Your task to perform on an android device: Open privacy settings Image 0: 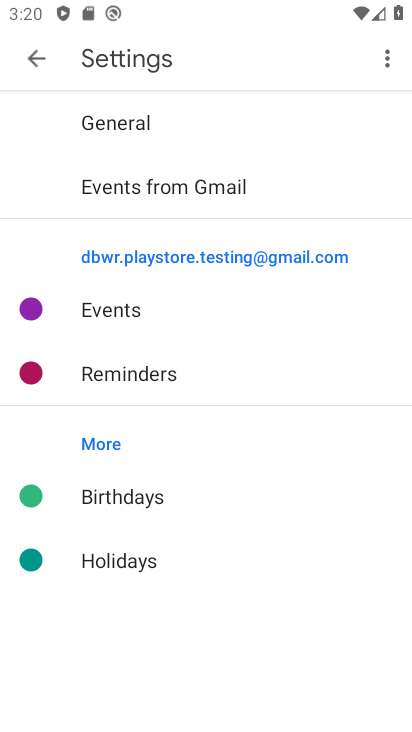
Step 0: press home button
Your task to perform on an android device: Open privacy settings Image 1: 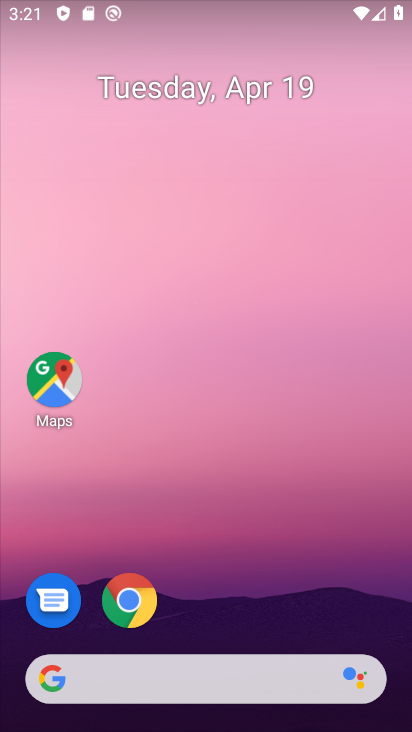
Step 1: drag from (236, 578) to (342, 9)
Your task to perform on an android device: Open privacy settings Image 2: 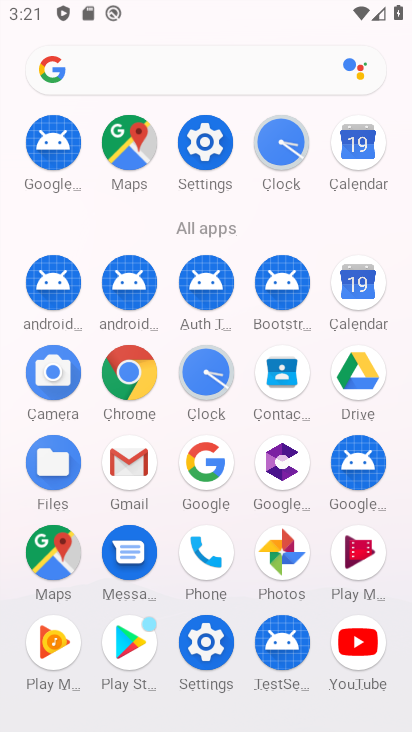
Step 2: click (208, 148)
Your task to perform on an android device: Open privacy settings Image 3: 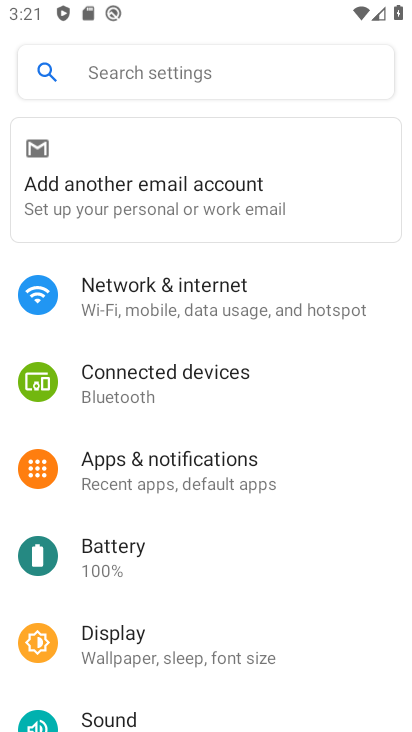
Step 3: drag from (137, 594) to (217, 253)
Your task to perform on an android device: Open privacy settings Image 4: 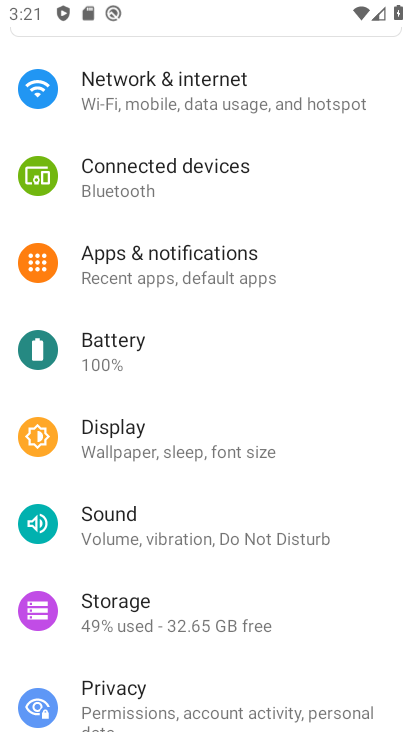
Step 4: click (110, 687)
Your task to perform on an android device: Open privacy settings Image 5: 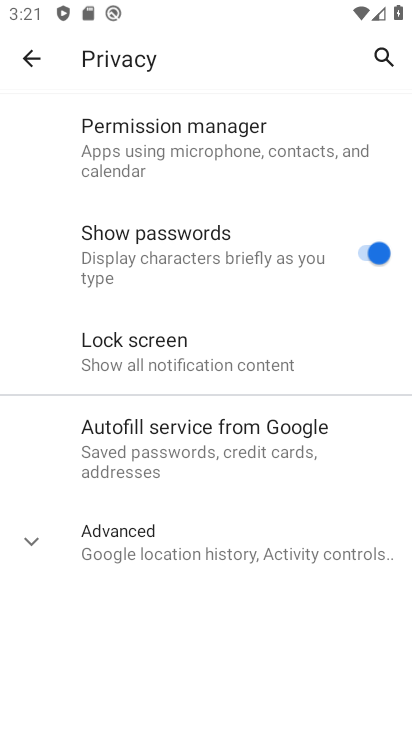
Step 5: task complete